Your task to perform on an android device: What's the weather going to be tomorrow? Image 0: 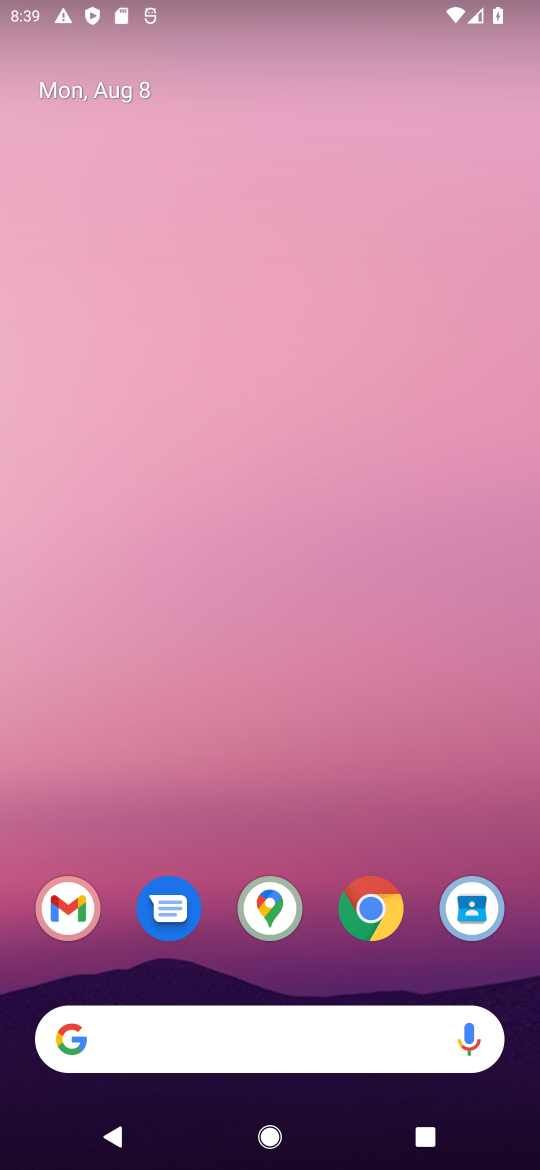
Step 0: click (135, 1014)
Your task to perform on an android device: What's the weather going to be tomorrow? Image 1: 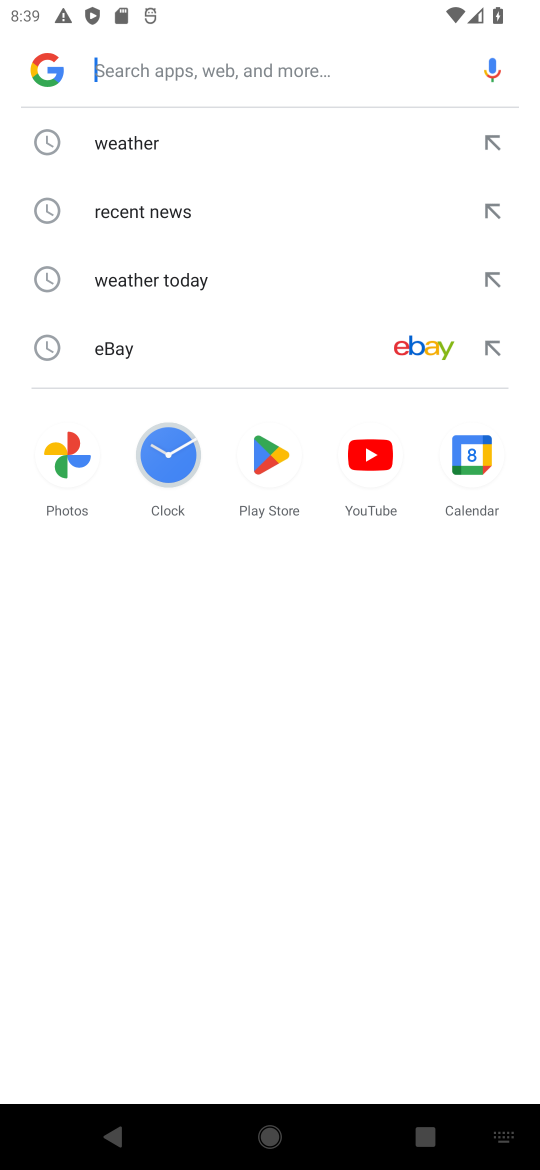
Step 1: click (260, 153)
Your task to perform on an android device: What's the weather going to be tomorrow? Image 2: 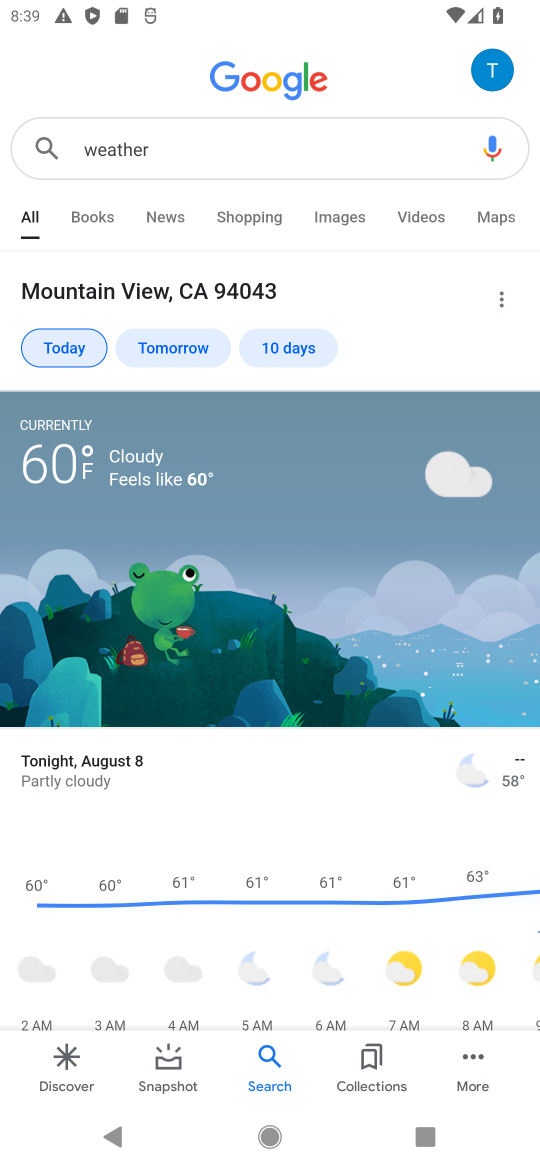
Step 2: task complete